Your task to perform on an android device: Open the phone app and click the voicemail tab. Image 0: 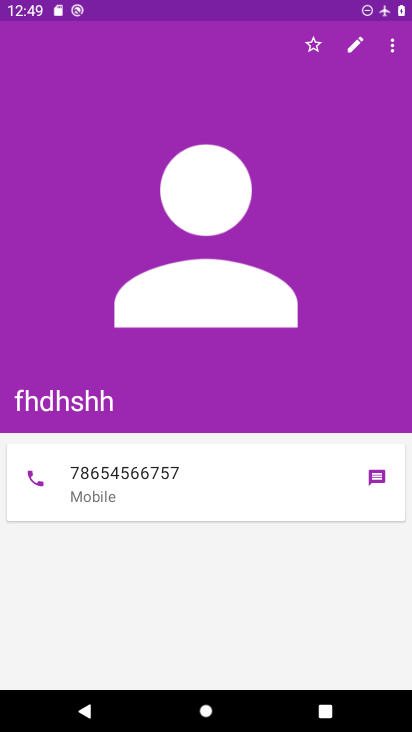
Step 0: drag from (296, 673) to (318, 258)
Your task to perform on an android device: Open the phone app and click the voicemail tab. Image 1: 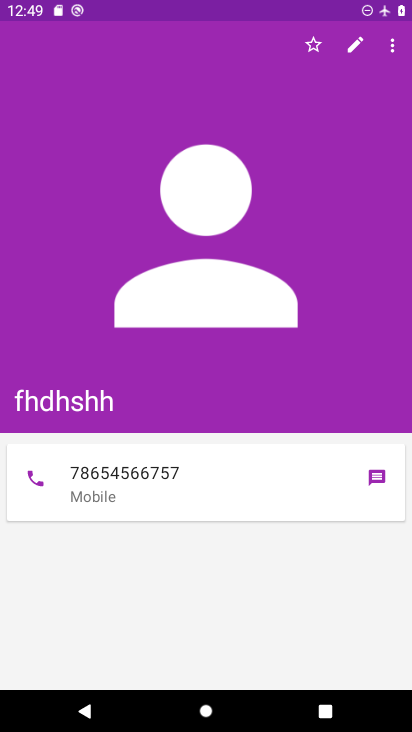
Step 1: press home button
Your task to perform on an android device: Open the phone app and click the voicemail tab. Image 2: 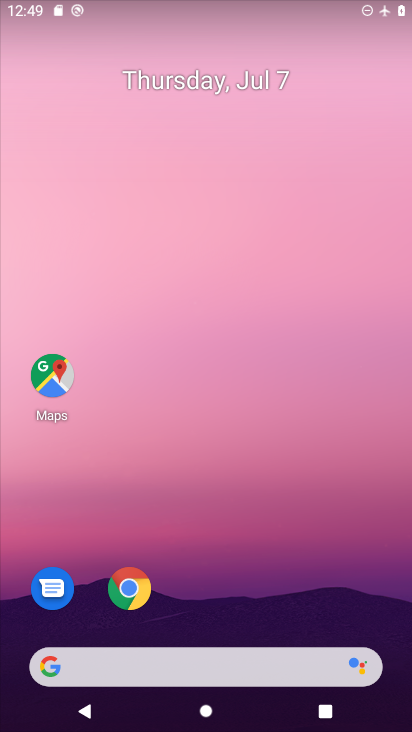
Step 2: drag from (324, 686) to (362, 36)
Your task to perform on an android device: Open the phone app and click the voicemail tab. Image 3: 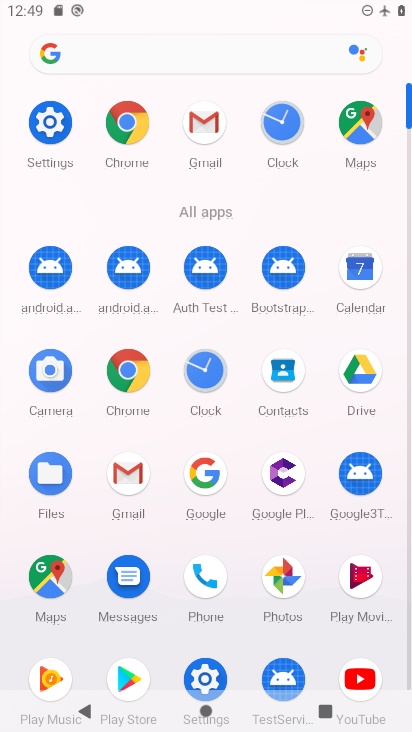
Step 3: click (212, 585)
Your task to perform on an android device: Open the phone app and click the voicemail tab. Image 4: 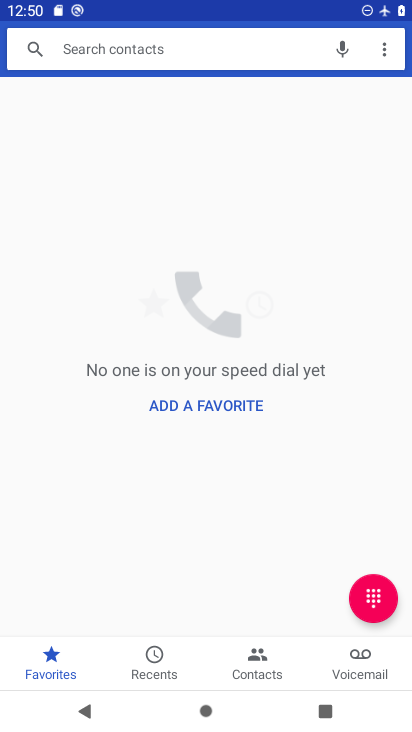
Step 4: click (381, 671)
Your task to perform on an android device: Open the phone app and click the voicemail tab. Image 5: 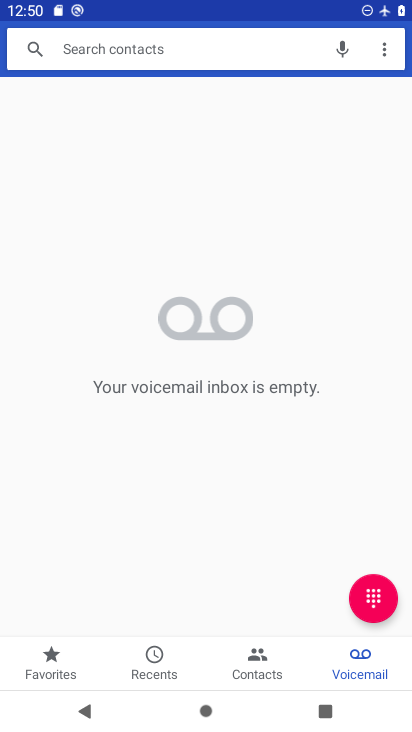
Step 5: task complete